Your task to perform on an android device: add a contact in the contacts app Image 0: 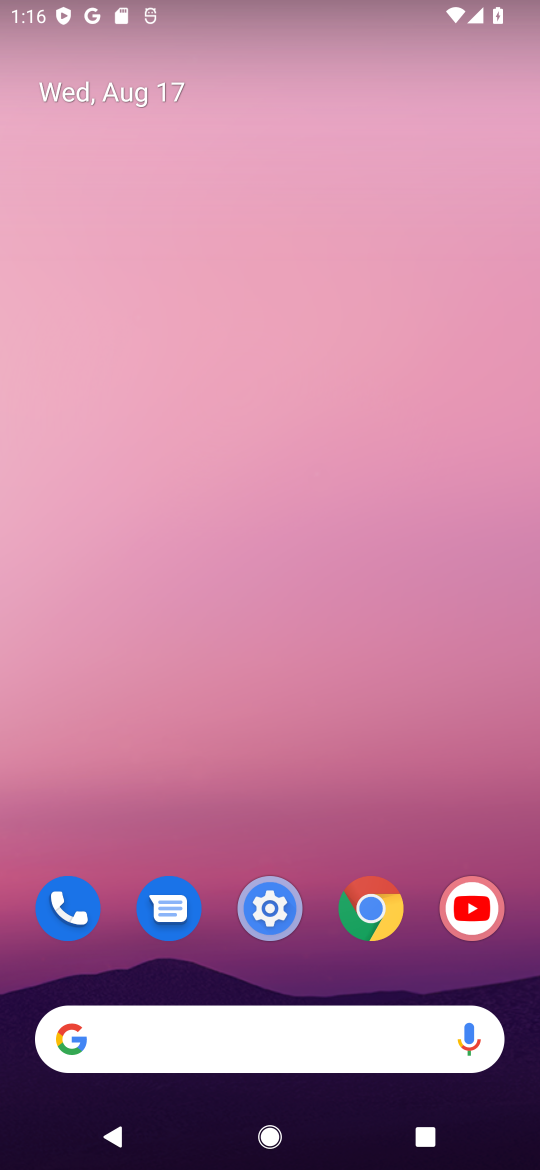
Step 0: drag from (317, 959) to (433, 85)
Your task to perform on an android device: add a contact in the contacts app Image 1: 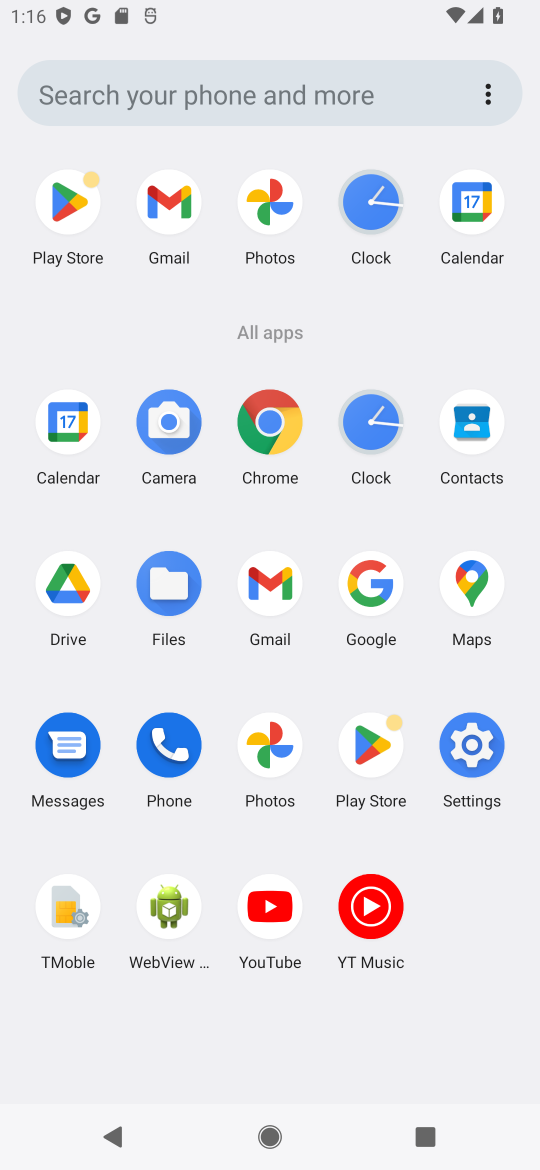
Step 1: click (467, 438)
Your task to perform on an android device: add a contact in the contacts app Image 2: 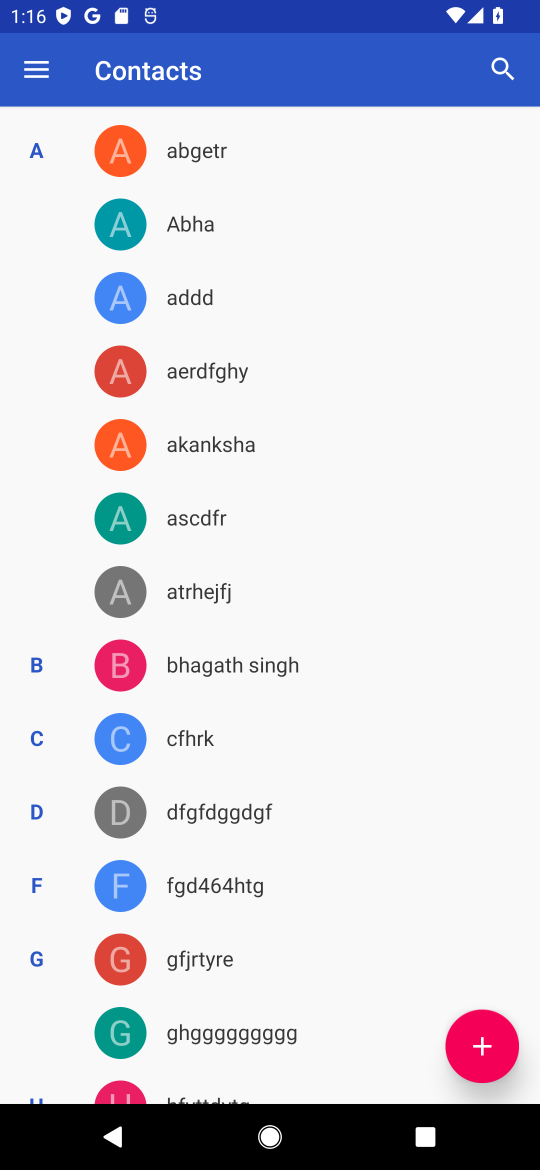
Step 2: click (472, 1068)
Your task to perform on an android device: add a contact in the contacts app Image 3: 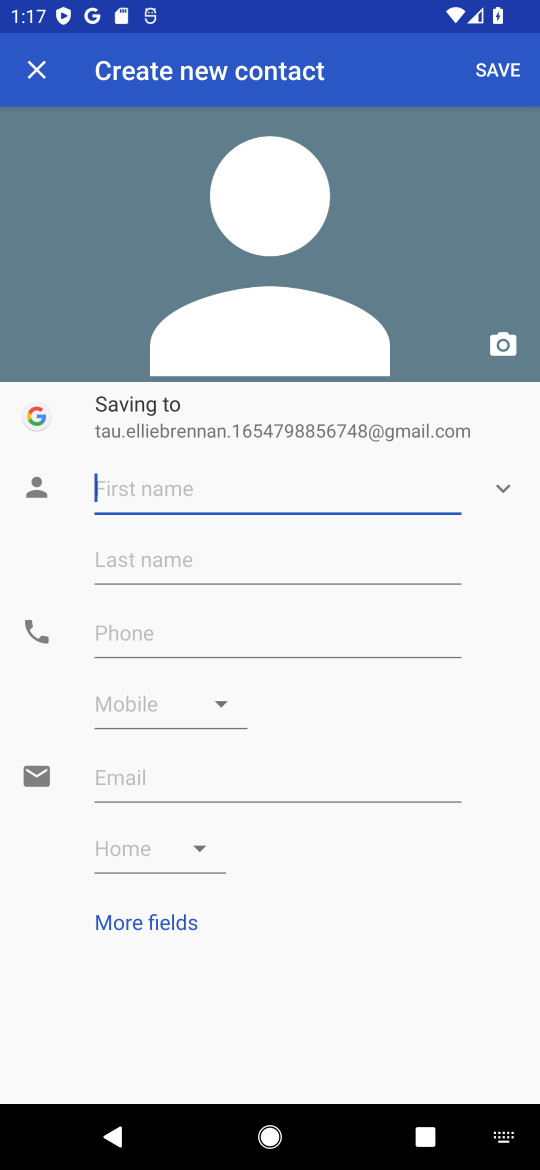
Step 3: type "mmmm,m"
Your task to perform on an android device: add a contact in the contacts app Image 4: 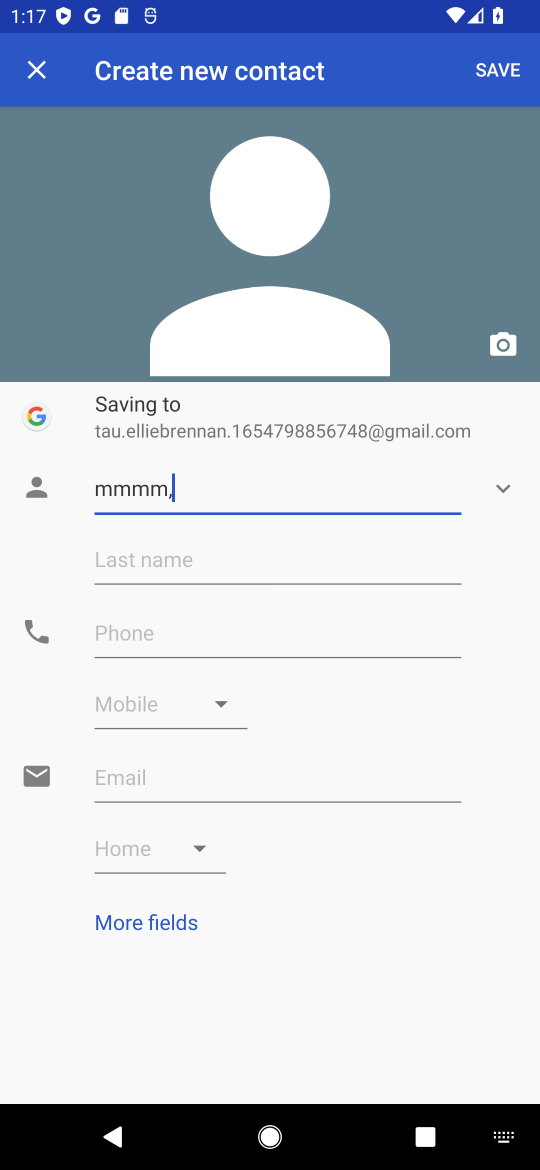
Step 4: press enter
Your task to perform on an android device: add a contact in the contacts app Image 5: 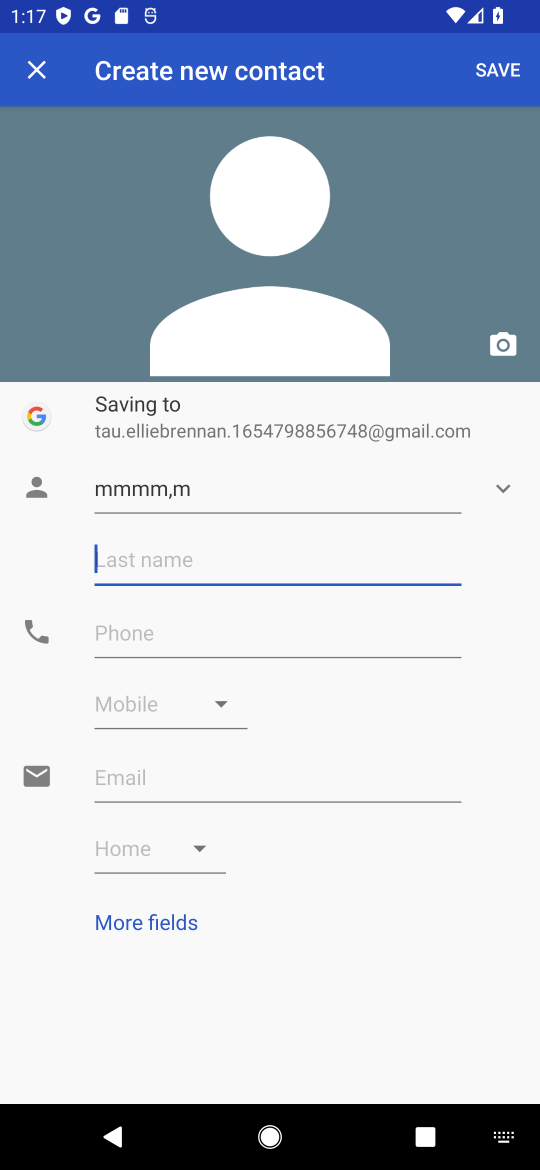
Step 5: click (150, 639)
Your task to perform on an android device: add a contact in the contacts app Image 6: 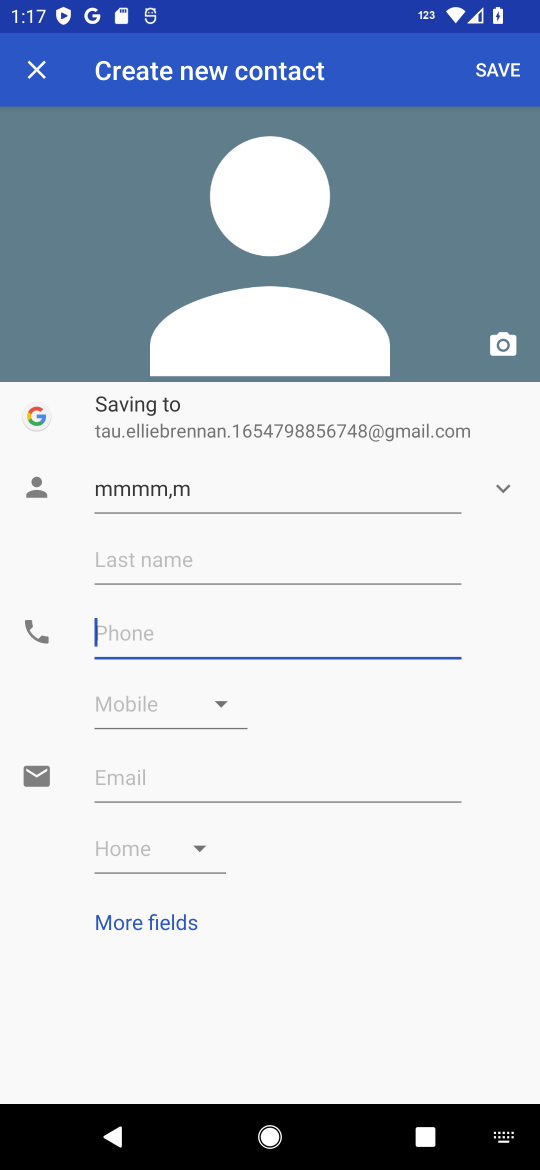
Step 6: click (510, 900)
Your task to perform on an android device: add a contact in the contacts app Image 7: 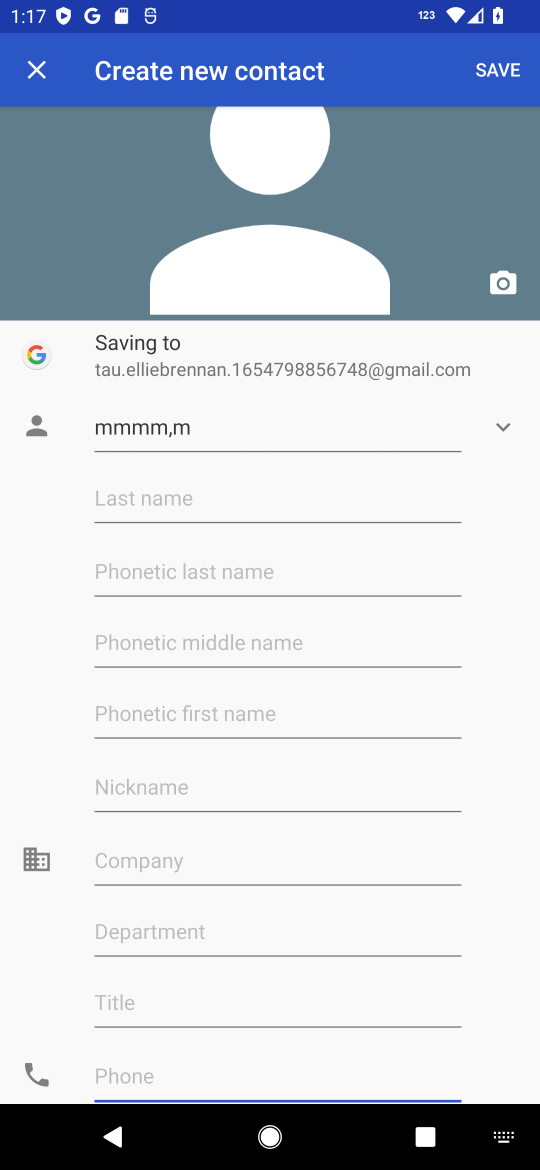
Step 7: click (87, 367)
Your task to perform on an android device: add a contact in the contacts app Image 8: 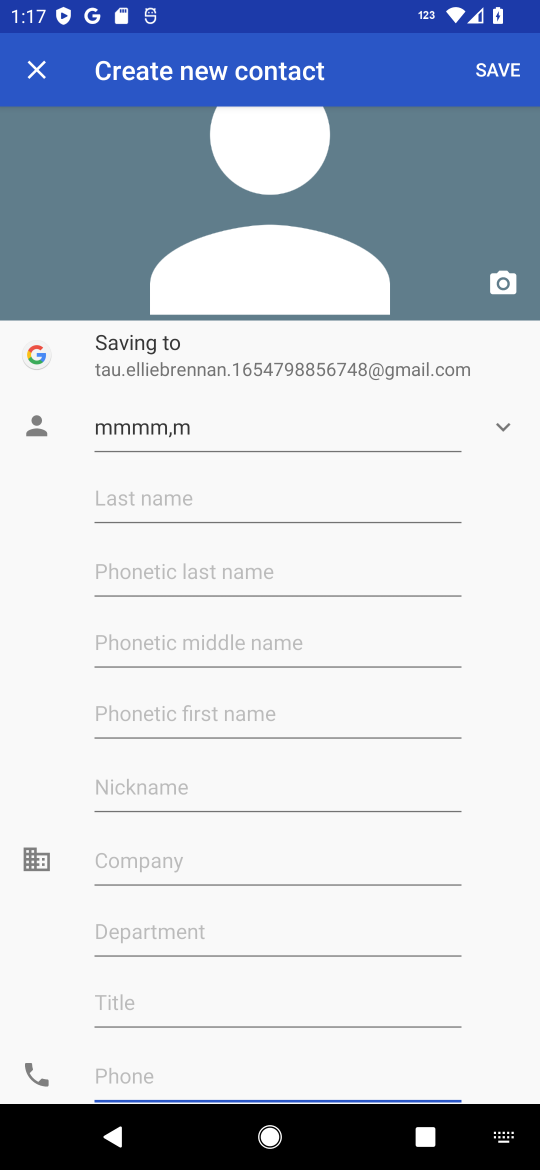
Step 8: click (246, 531)
Your task to perform on an android device: add a contact in the contacts app Image 9: 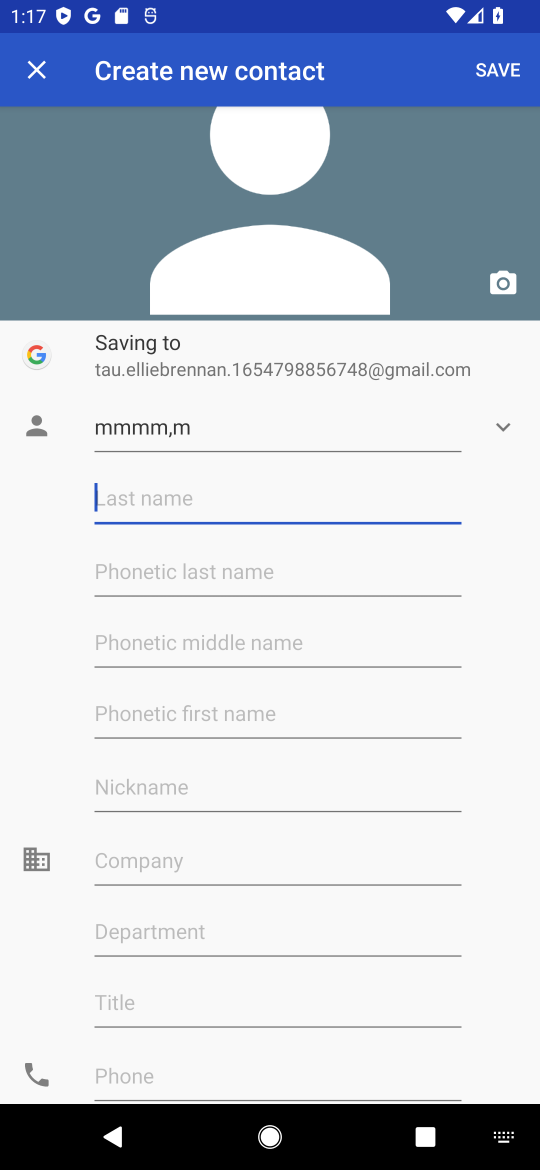
Step 9: click (503, 427)
Your task to perform on an android device: add a contact in the contacts app Image 10: 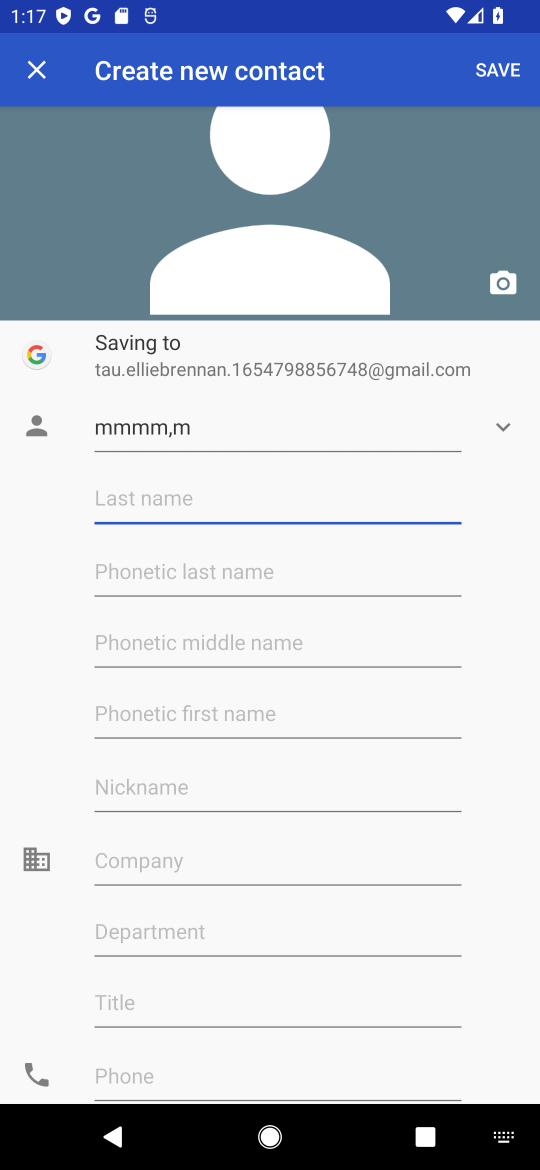
Step 10: click (503, 427)
Your task to perform on an android device: add a contact in the contacts app Image 11: 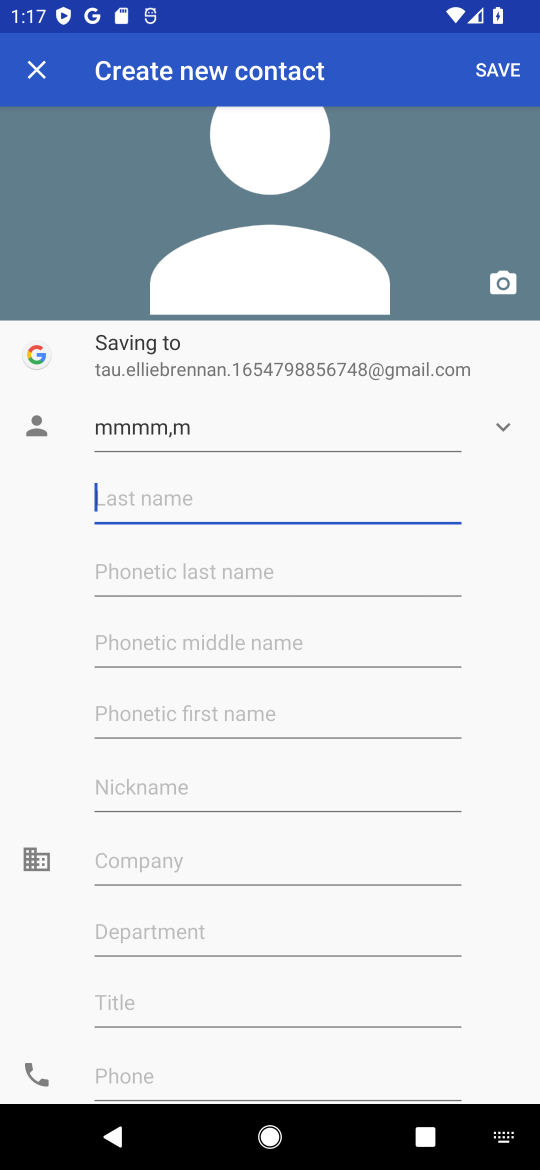
Step 11: click (202, 569)
Your task to perform on an android device: add a contact in the contacts app Image 12: 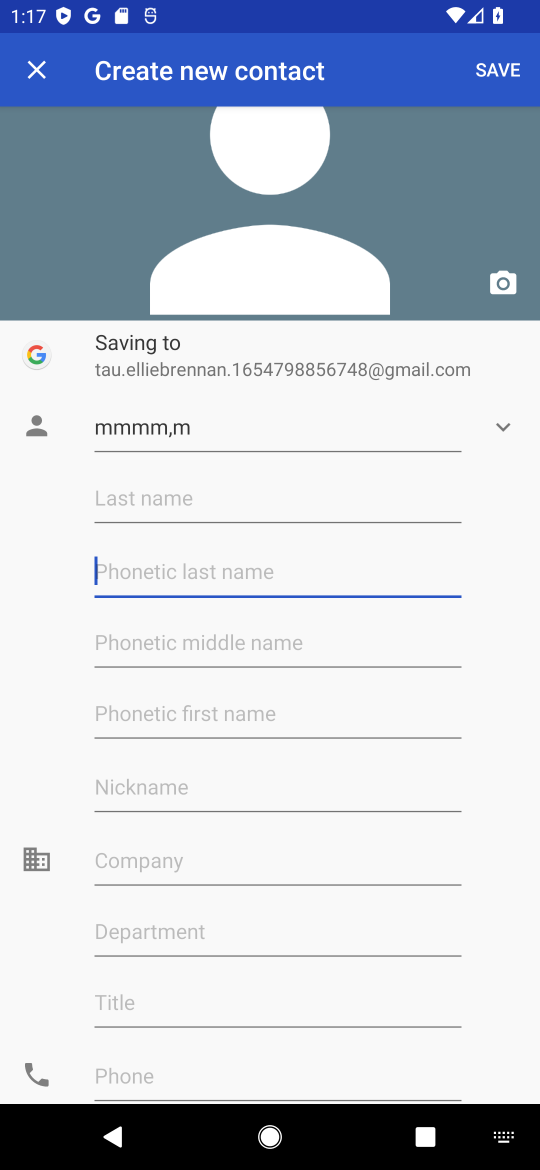
Step 12: press enter
Your task to perform on an android device: add a contact in the contacts app Image 13: 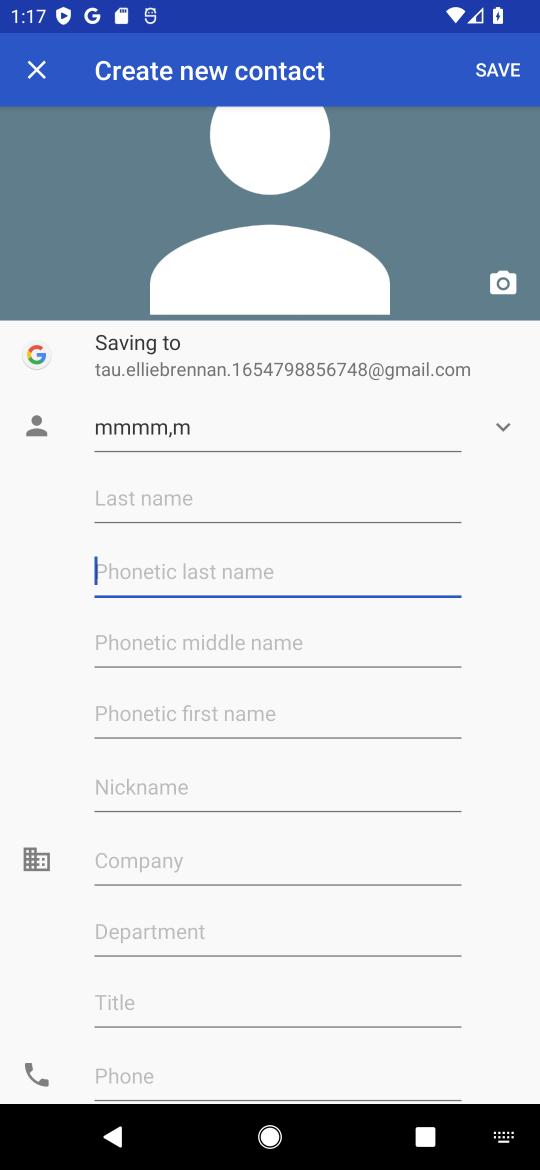
Step 13: type "99999"
Your task to perform on an android device: add a contact in the contacts app Image 14: 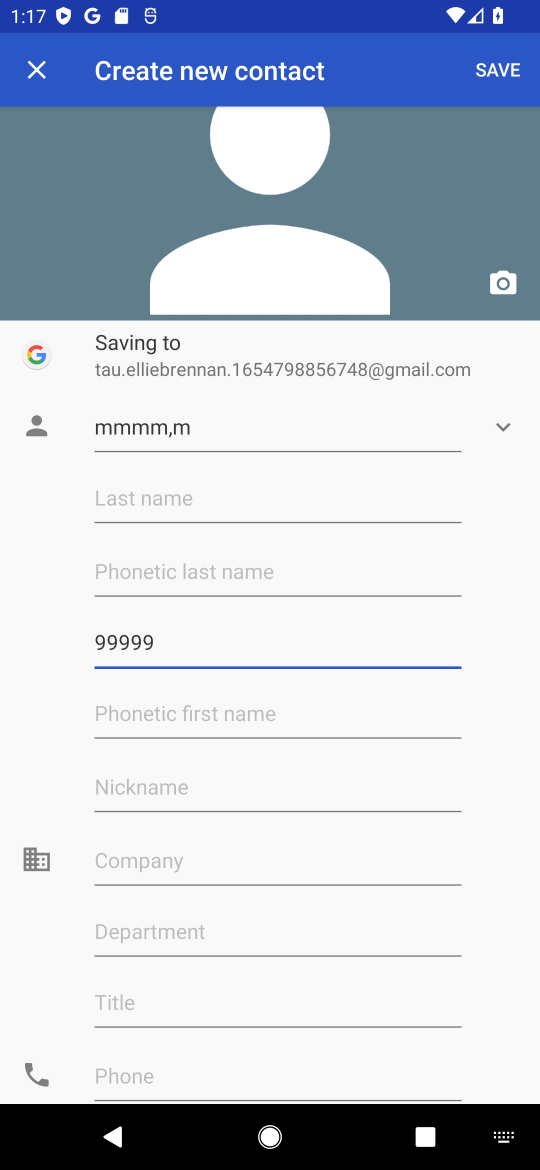
Step 14: click (222, 14)
Your task to perform on an android device: add a contact in the contacts app Image 15: 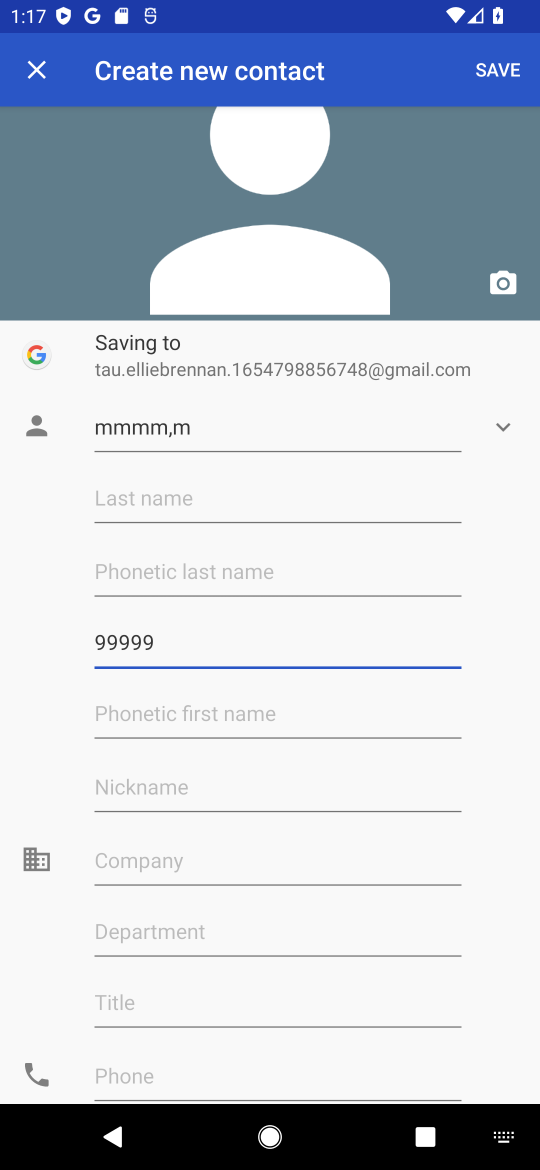
Step 15: click (496, 59)
Your task to perform on an android device: add a contact in the contacts app Image 16: 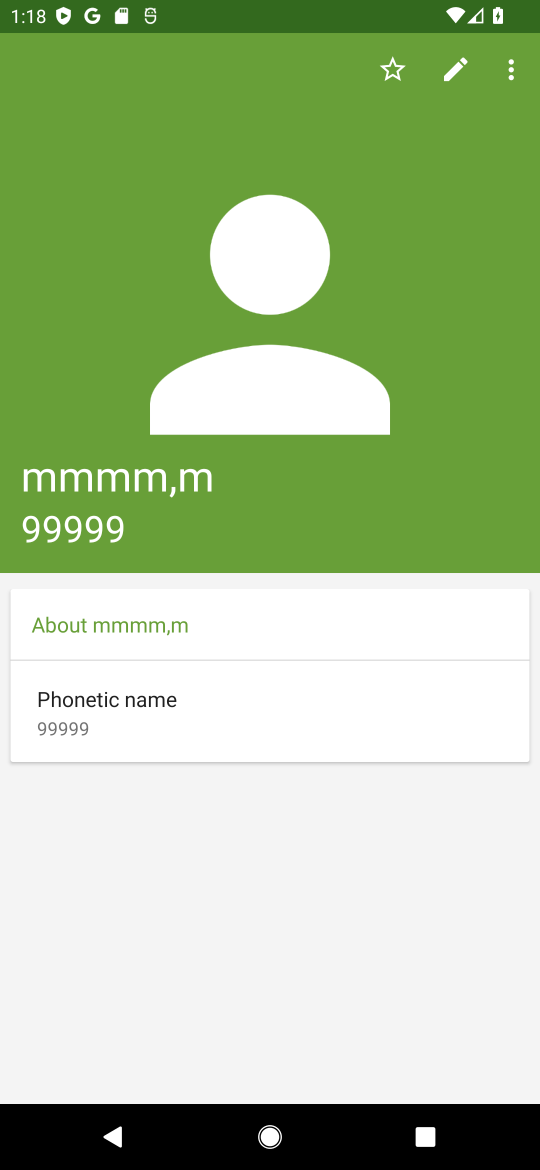
Step 16: task complete